Your task to perform on an android device: turn on priority inbox in the gmail app Image 0: 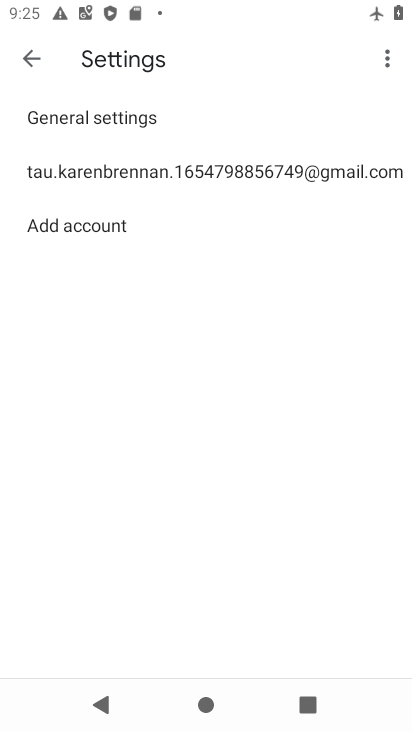
Step 0: click (264, 170)
Your task to perform on an android device: turn on priority inbox in the gmail app Image 1: 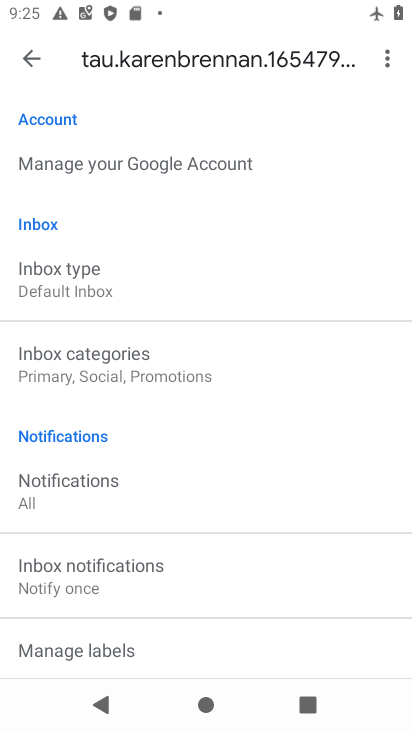
Step 1: click (77, 270)
Your task to perform on an android device: turn on priority inbox in the gmail app Image 2: 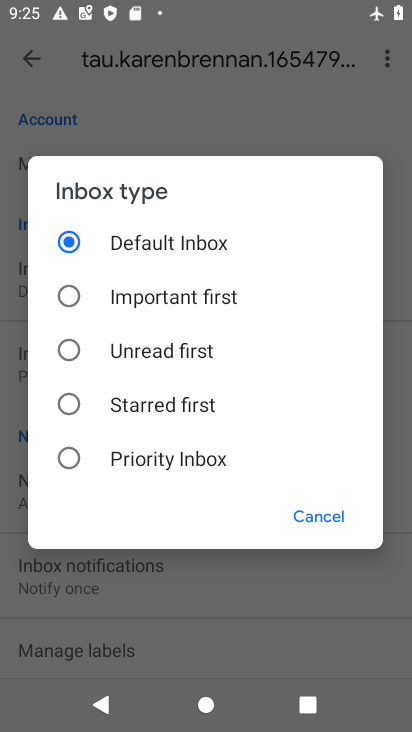
Step 2: click (69, 451)
Your task to perform on an android device: turn on priority inbox in the gmail app Image 3: 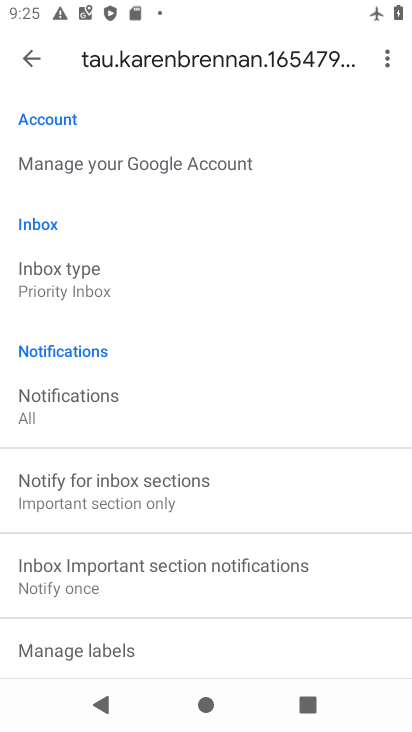
Step 3: task complete